Your task to perform on an android device: What is the news today? Image 0: 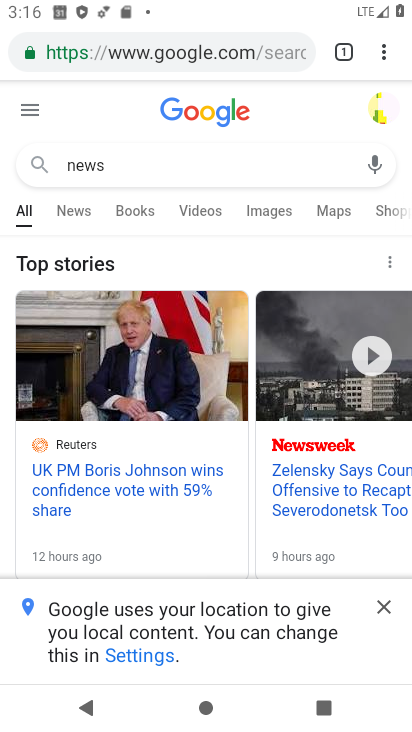
Step 0: click (202, 31)
Your task to perform on an android device: What is the news today? Image 1: 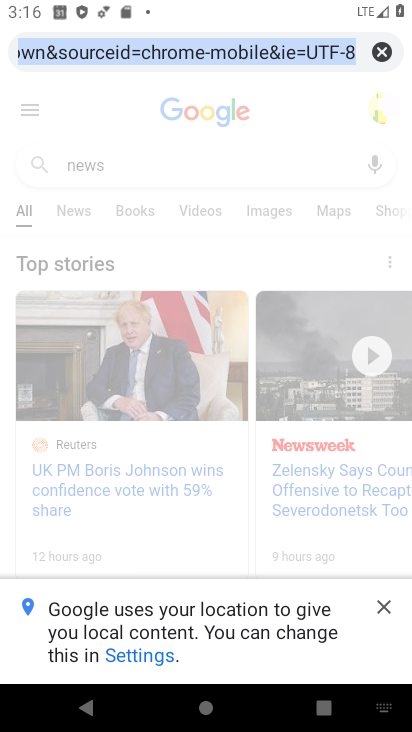
Step 1: click (381, 55)
Your task to perform on an android device: What is the news today? Image 2: 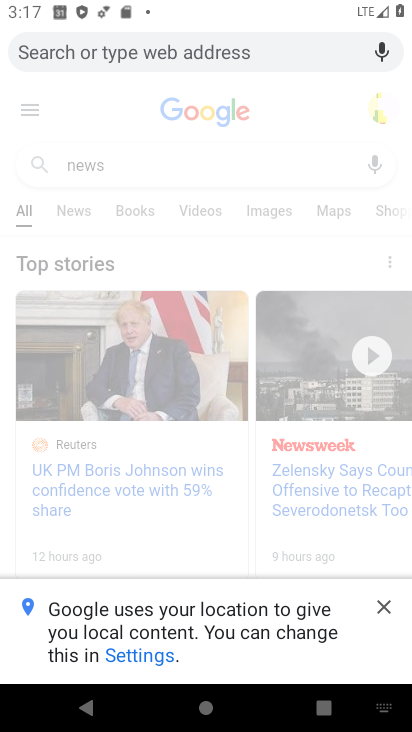
Step 2: type "What is the news today?"
Your task to perform on an android device: What is the news today? Image 3: 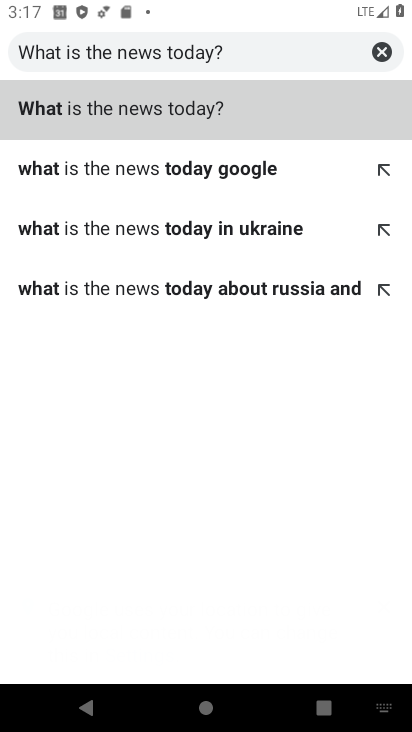
Step 3: click (346, 97)
Your task to perform on an android device: What is the news today? Image 4: 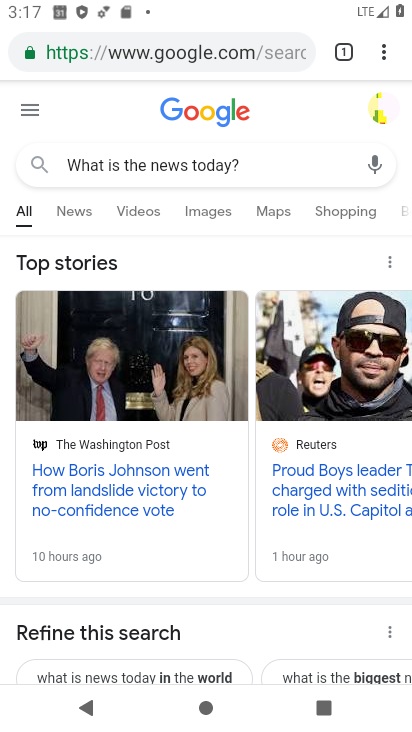
Step 4: task complete